Your task to perform on an android device: toggle javascript in the chrome app Image 0: 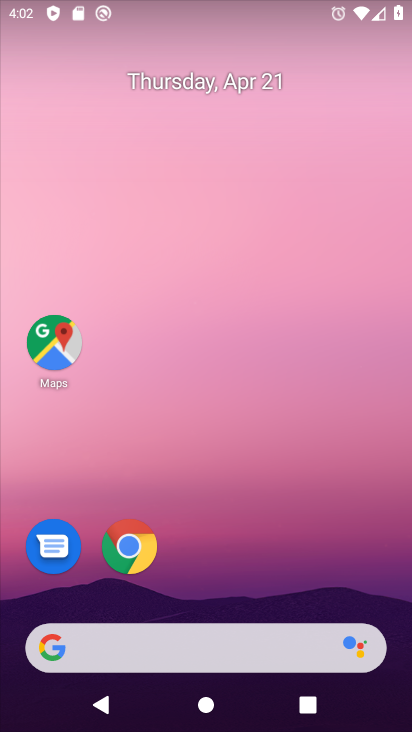
Step 0: click (132, 543)
Your task to perform on an android device: toggle javascript in the chrome app Image 1: 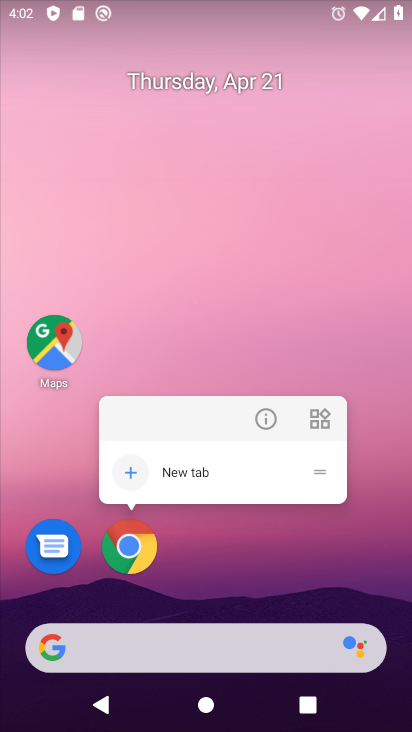
Step 1: drag from (308, 572) to (362, 31)
Your task to perform on an android device: toggle javascript in the chrome app Image 2: 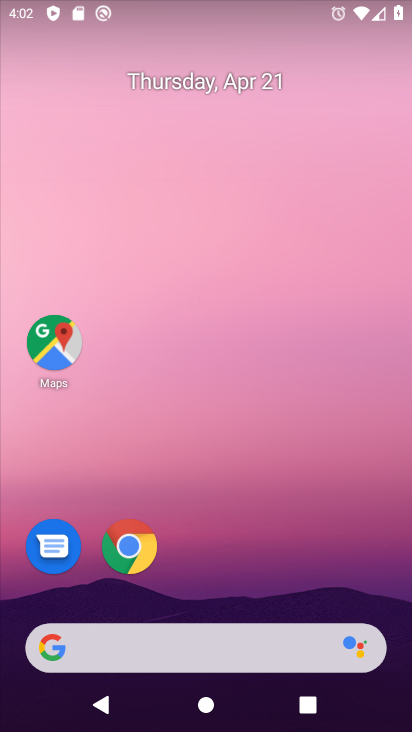
Step 2: drag from (291, 467) to (318, 73)
Your task to perform on an android device: toggle javascript in the chrome app Image 3: 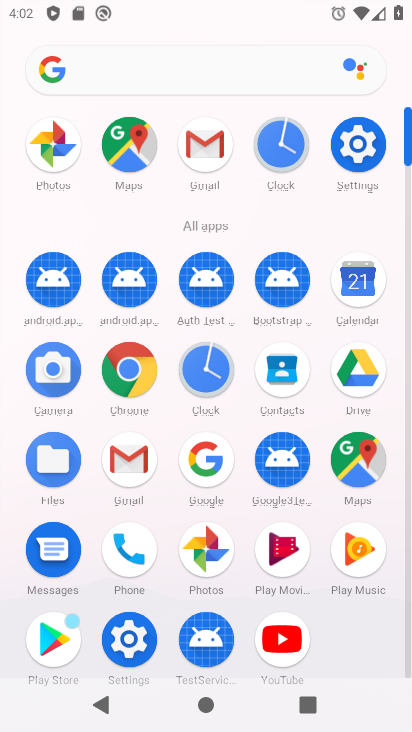
Step 3: click (116, 370)
Your task to perform on an android device: toggle javascript in the chrome app Image 4: 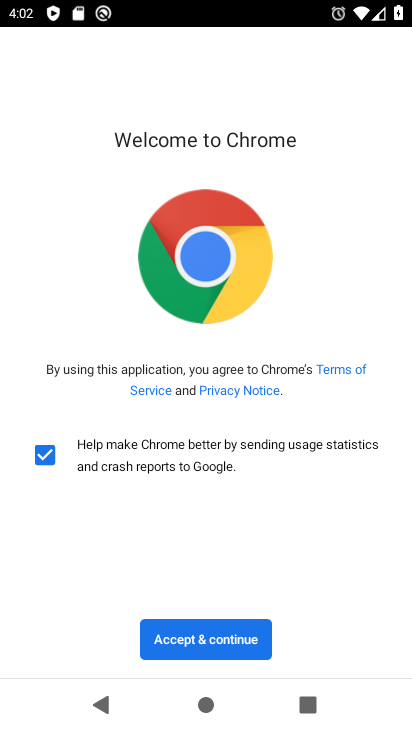
Step 4: click (201, 637)
Your task to perform on an android device: toggle javascript in the chrome app Image 5: 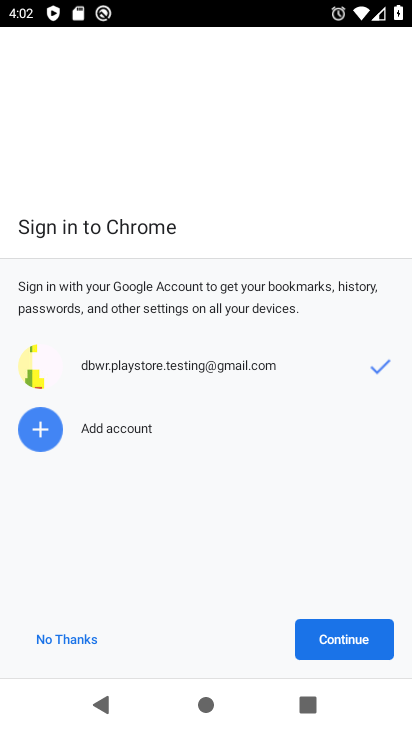
Step 5: click (307, 630)
Your task to perform on an android device: toggle javascript in the chrome app Image 6: 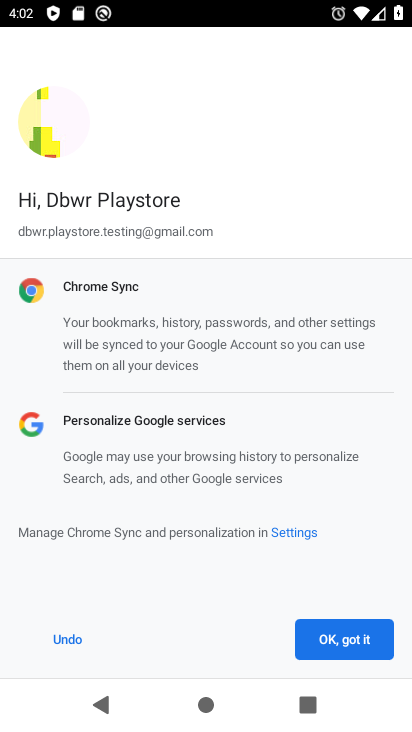
Step 6: click (323, 638)
Your task to perform on an android device: toggle javascript in the chrome app Image 7: 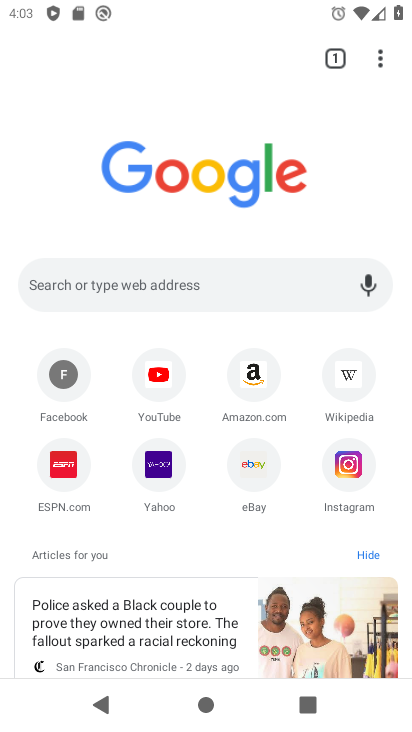
Step 7: drag from (383, 52) to (217, 492)
Your task to perform on an android device: toggle javascript in the chrome app Image 8: 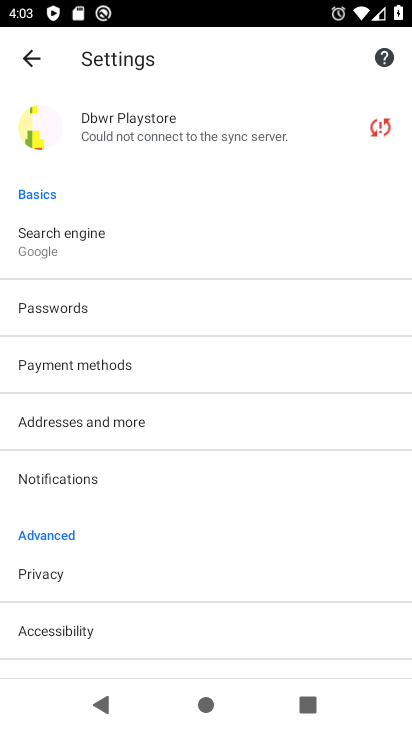
Step 8: drag from (164, 579) to (216, 246)
Your task to perform on an android device: toggle javascript in the chrome app Image 9: 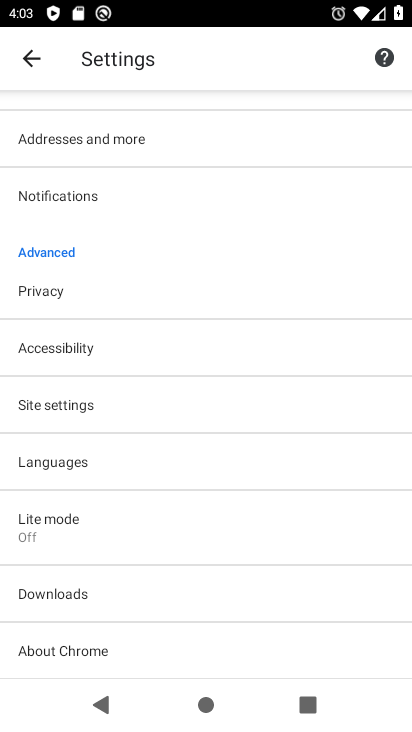
Step 9: click (119, 397)
Your task to perform on an android device: toggle javascript in the chrome app Image 10: 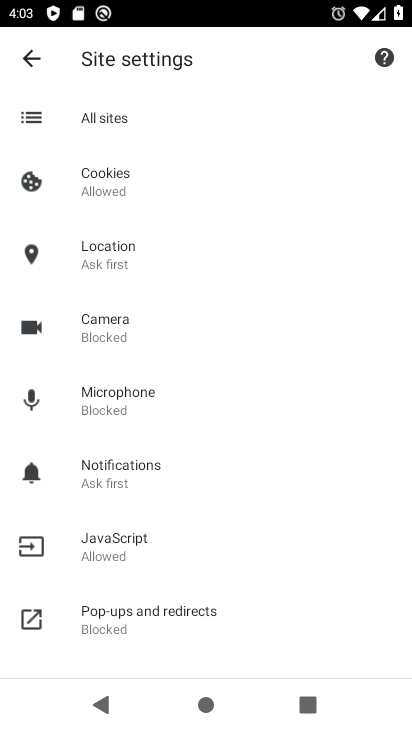
Step 10: click (150, 547)
Your task to perform on an android device: toggle javascript in the chrome app Image 11: 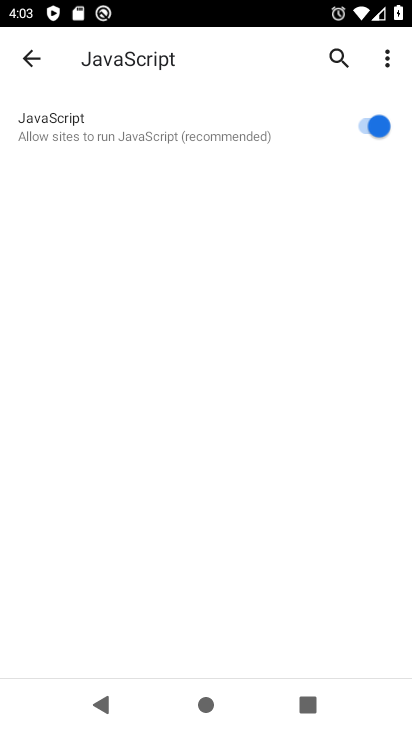
Step 11: click (361, 123)
Your task to perform on an android device: toggle javascript in the chrome app Image 12: 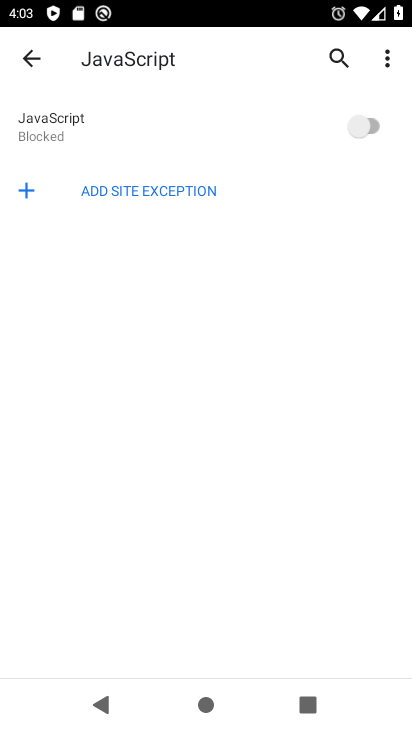
Step 12: task complete